Your task to perform on an android device: Open the stopwatch Image 0: 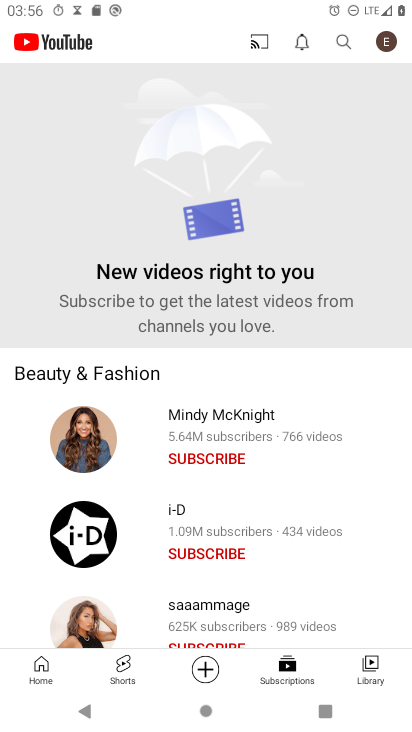
Step 0: press back button
Your task to perform on an android device: Open the stopwatch Image 1: 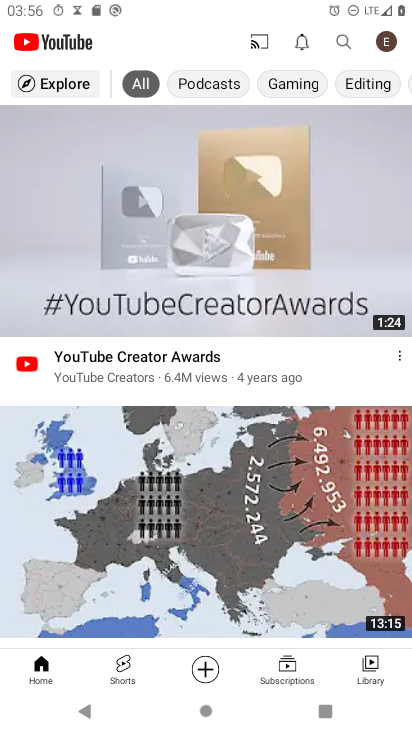
Step 1: press back button
Your task to perform on an android device: Open the stopwatch Image 2: 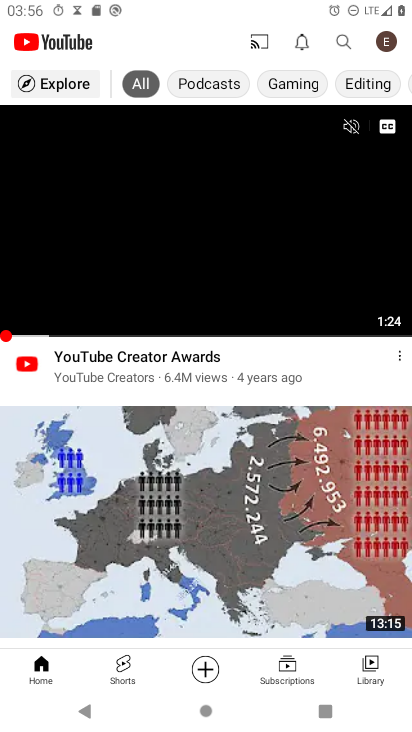
Step 2: press back button
Your task to perform on an android device: Open the stopwatch Image 3: 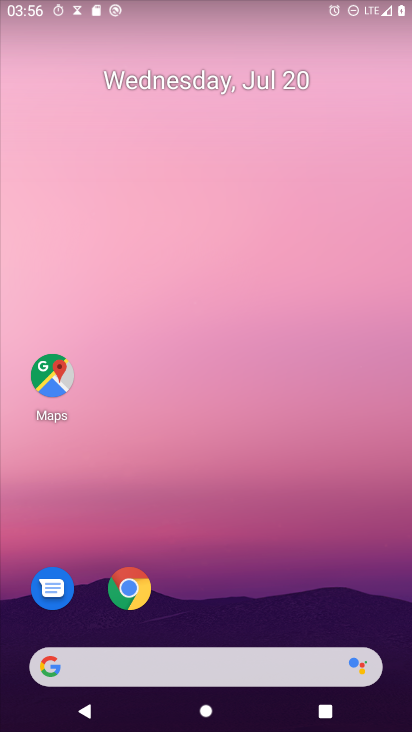
Step 3: drag from (204, 621) to (393, 237)
Your task to perform on an android device: Open the stopwatch Image 4: 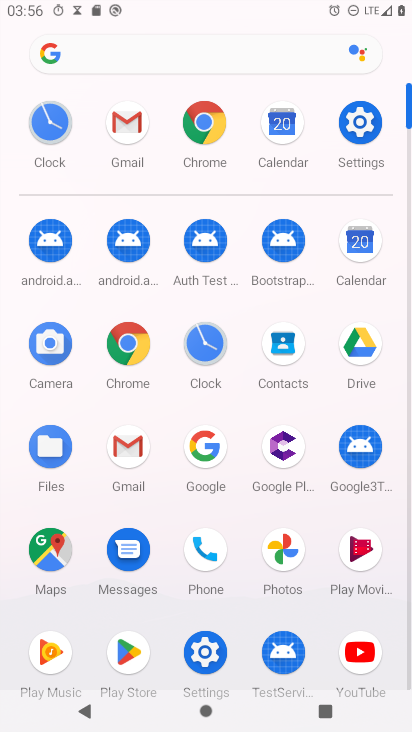
Step 4: click (205, 340)
Your task to perform on an android device: Open the stopwatch Image 5: 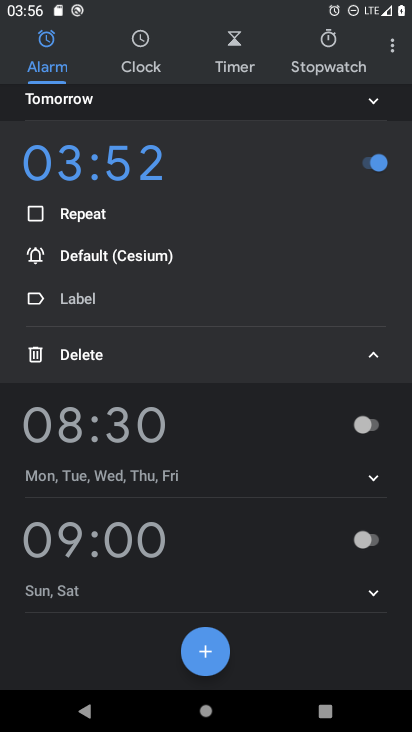
Step 5: click (304, 58)
Your task to perform on an android device: Open the stopwatch Image 6: 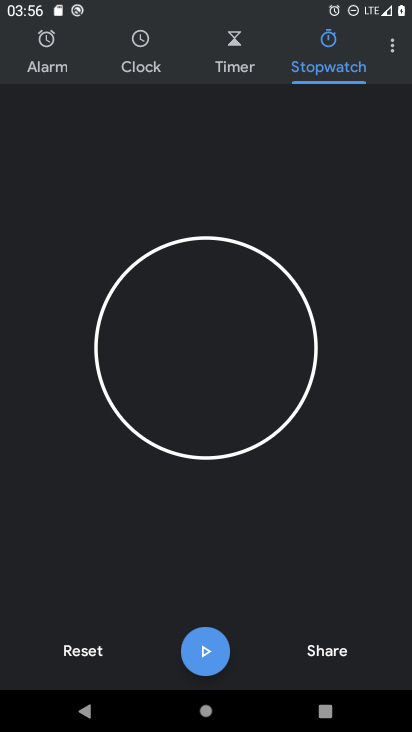
Step 6: task complete